Your task to perform on an android device: change timer sound Image 0: 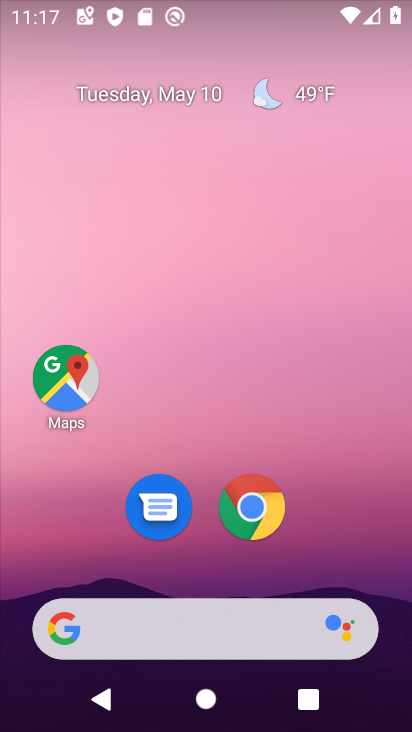
Step 0: drag from (221, 551) to (229, 71)
Your task to perform on an android device: change timer sound Image 1: 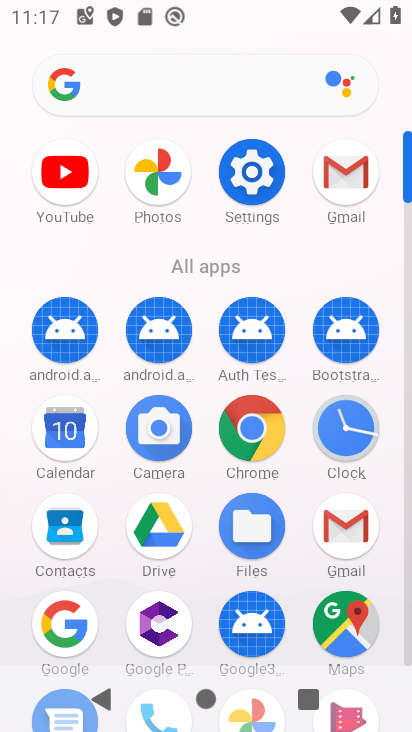
Step 1: click (348, 433)
Your task to perform on an android device: change timer sound Image 2: 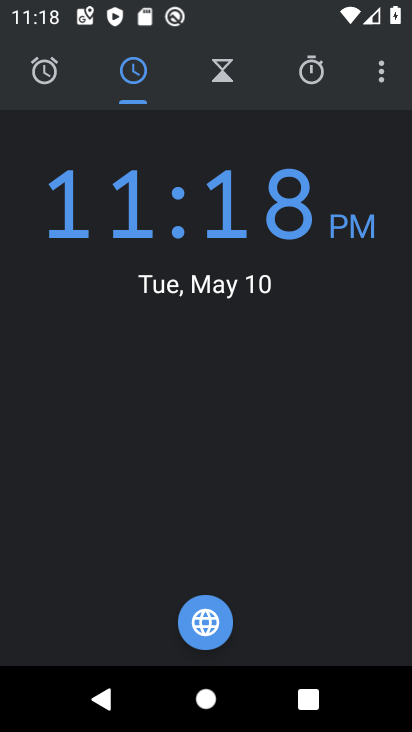
Step 2: click (371, 70)
Your task to perform on an android device: change timer sound Image 3: 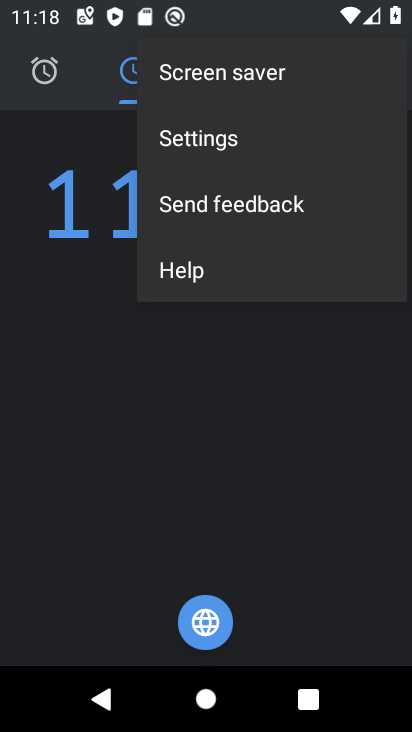
Step 3: click (231, 140)
Your task to perform on an android device: change timer sound Image 4: 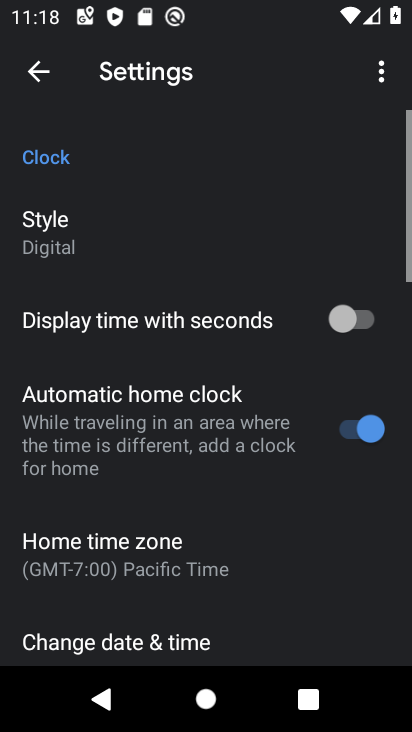
Step 4: drag from (241, 562) to (246, 97)
Your task to perform on an android device: change timer sound Image 5: 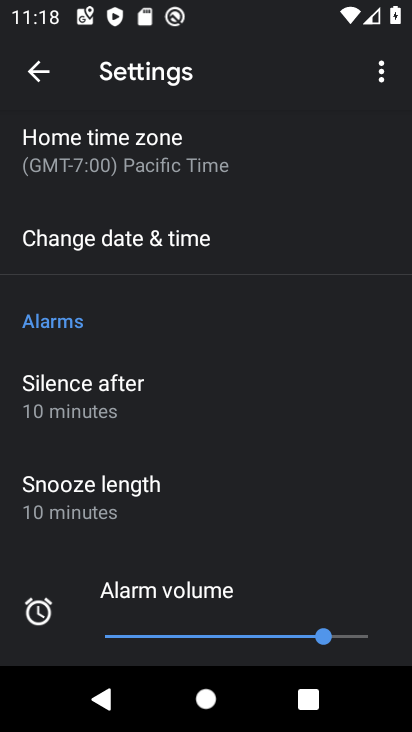
Step 5: drag from (233, 476) to (242, 31)
Your task to perform on an android device: change timer sound Image 6: 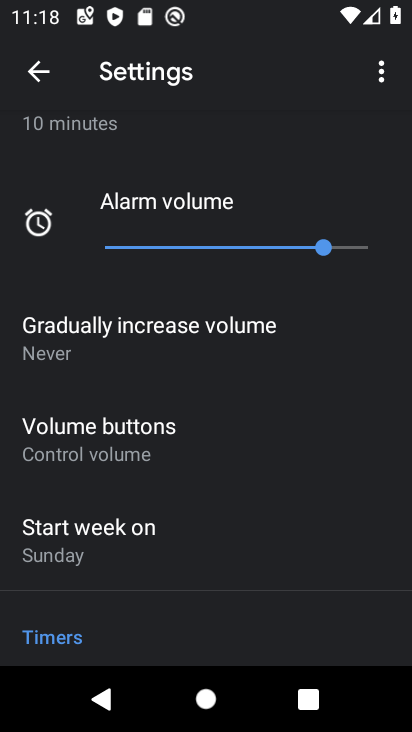
Step 6: drag from (150, 621) to (162, 334)
Your task to perform on an android device: change timer sound Image 7: 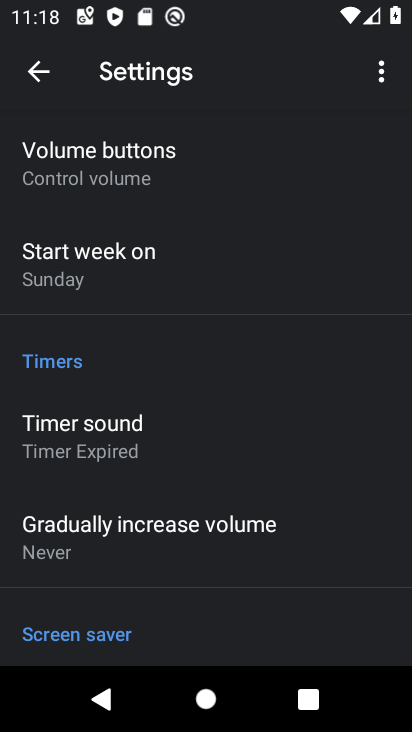
Step 7: click (121, 433)
Your task to perform on an android device: change timer sound Image 8: 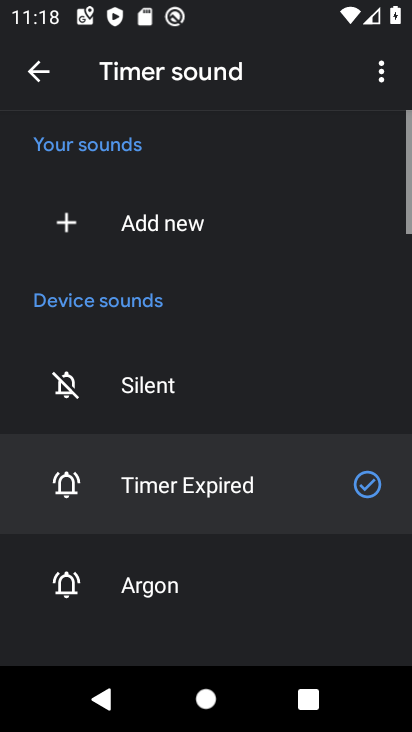
Step 8: click (111, 380)
Your task to perform on an android device: change timer sound Image 9: 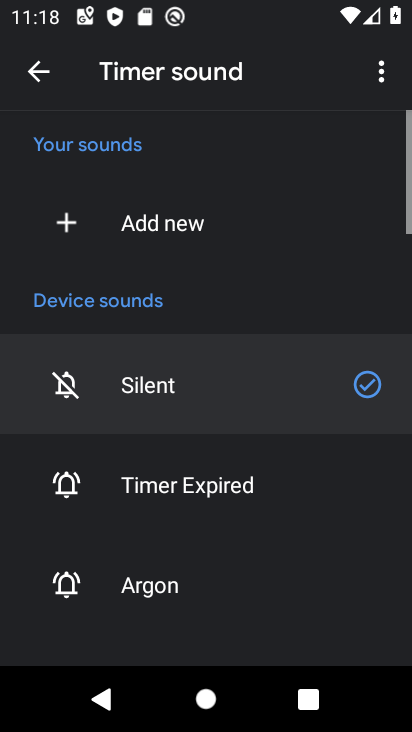
Step 9: task complete